Your task to perform on an android device: allow notifications from all sites in the chrome app Image 0: 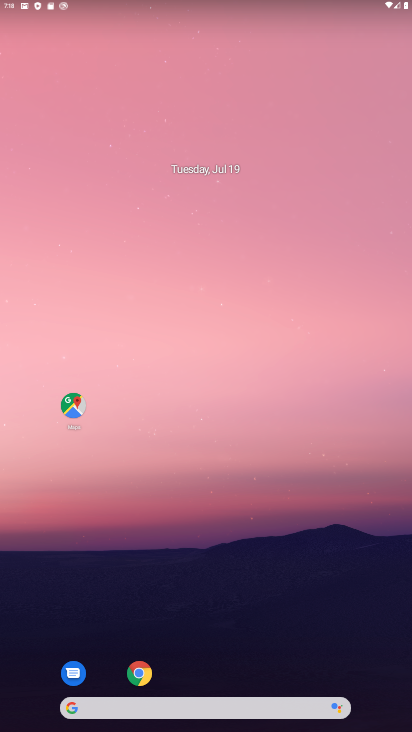
Step 0: drag from (223, 609) to (145, 1)
Your task to perform on an android device: allow notifications from all sites in the chrome app Image 1: 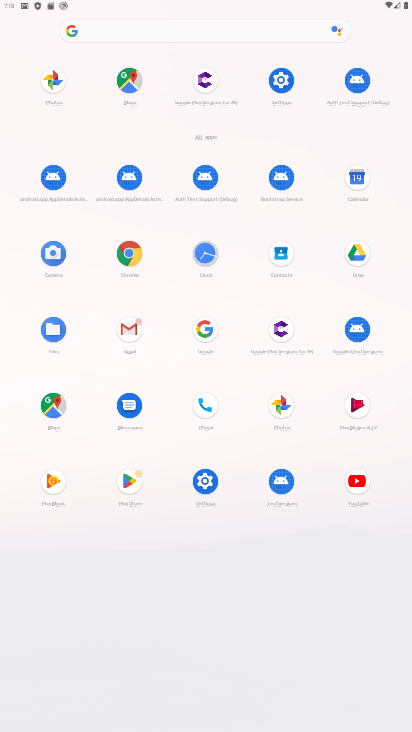
Step 1: click (127, 263)
Your task to perform on an android device: allow notifications from all sites in the chrome app Image 2: 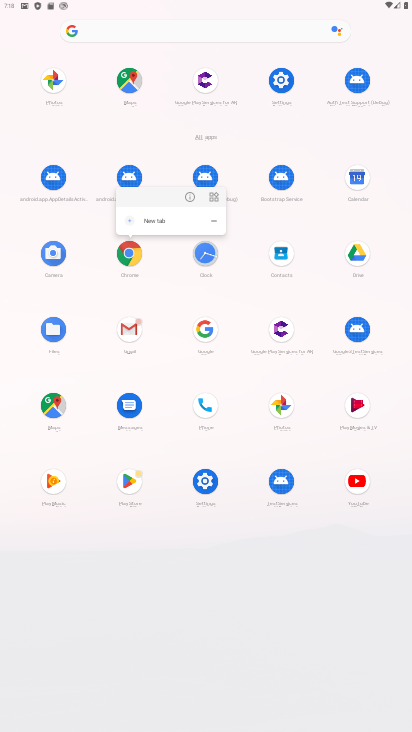
Step 2: click (127, 263)
Your task to perform on an android device: allow notifications from all sites in the chrome app Image 3: 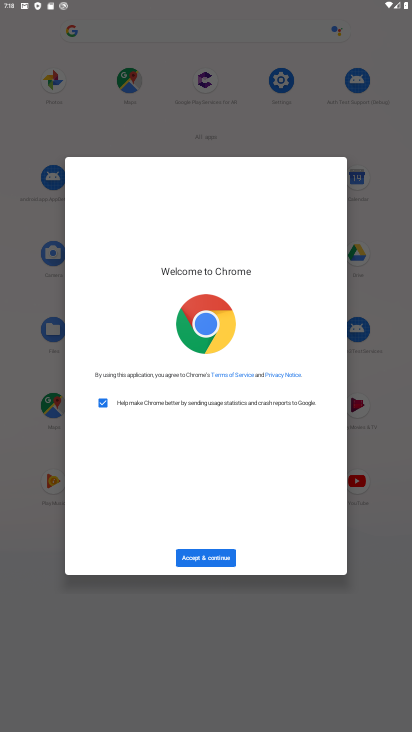
Step 3: click (202, 557)
Your task to perform on an android device: allow notifications from all sites in the chrome app Image 4: 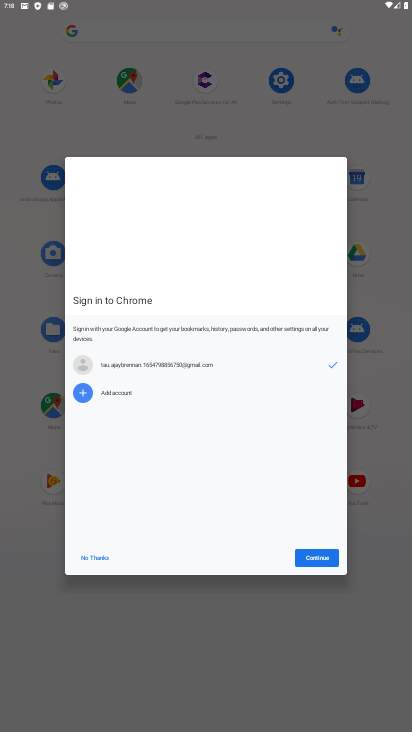
Step 4: click (98, 566)
Your task to perform on an android device: allow notifications from all sites in the chrome app Image 5: 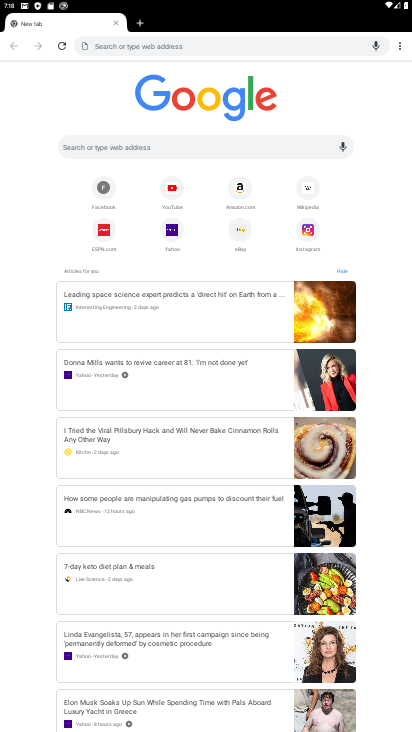
Step 5: drag from (398, 51) to (336, 212)
Your task to perform on an android device: allow notifications from all sites in the chrome app Image 6: 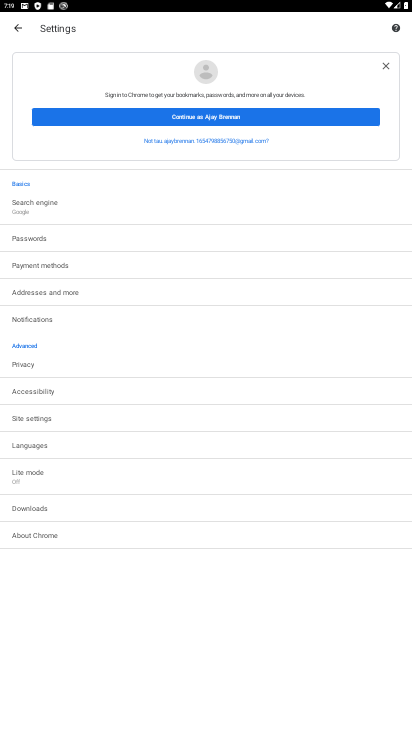
Step 6: click (89, 428)
Your task to perform on an android device: allow notifications from all sites in the chrome app Image 7: 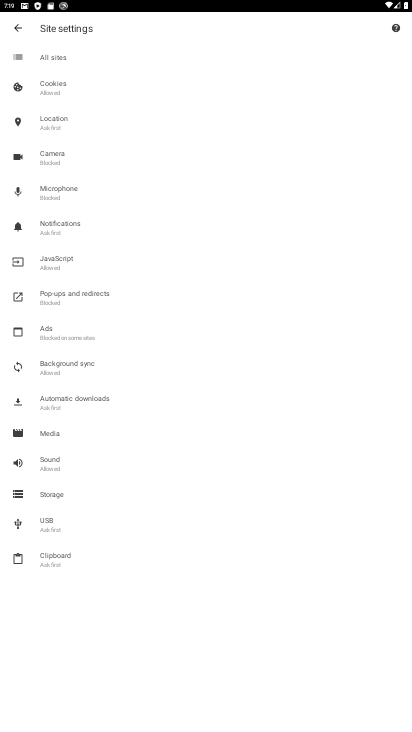
Step 7: click (71, 227)
Your task to perform on an android device: allow notifications from all sites in the chrome app Image 8: 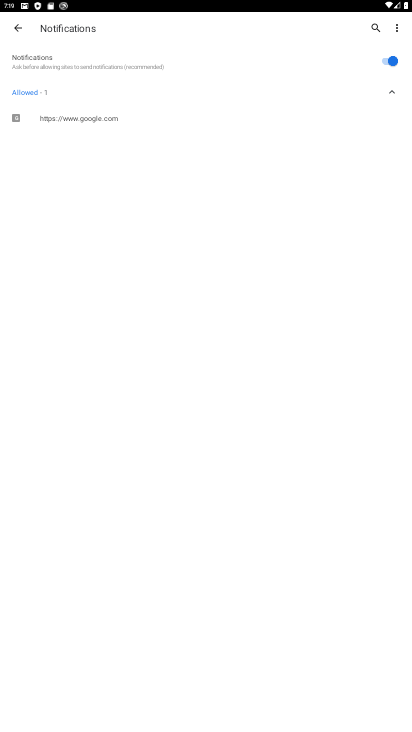
Step 8: task complete